Your task to perform on an android device: Open Google Chrome and open the bookmarks view Image 0: 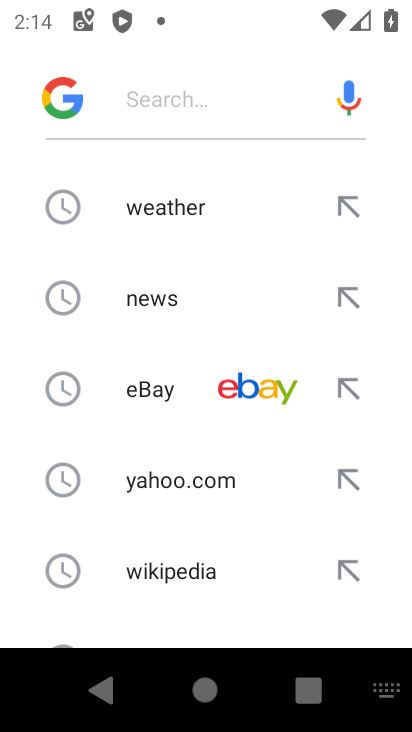
Step 0: press home button
Your task to perform on an android device: Open Google Chrome and open the bookmarks view Image 1: 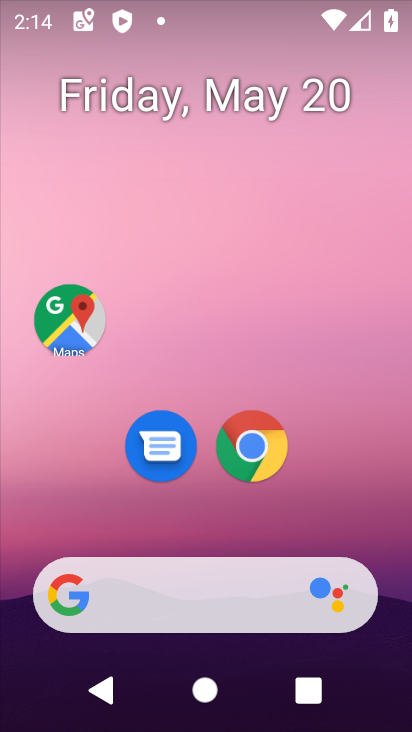
Step 1: click (250, 455)
Your task to perform on an android device: Open Google Chrome and open the bookmarks view Image 2: 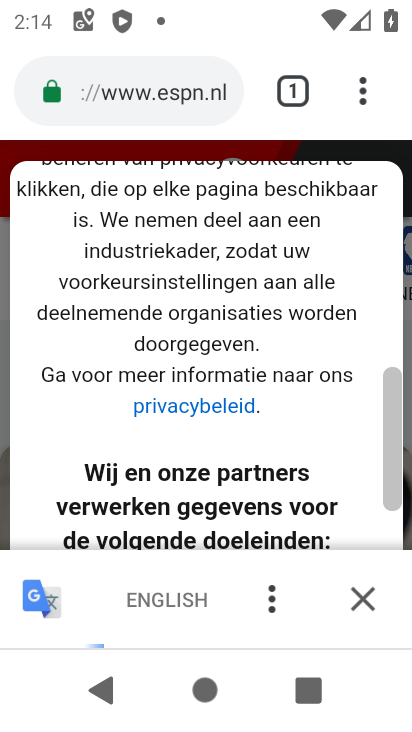
Step 2: click (365, 96)
Your task to perform on an android device: Open Google Chrome and open the bookmarks view Image 3: 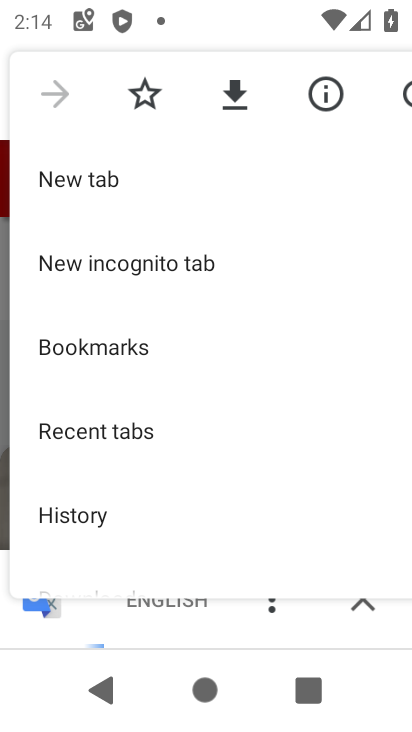
Step 3: click (111, 351)
Your task to perform on an android device: Open Google Chrome and open the bookmarks view Image 4: 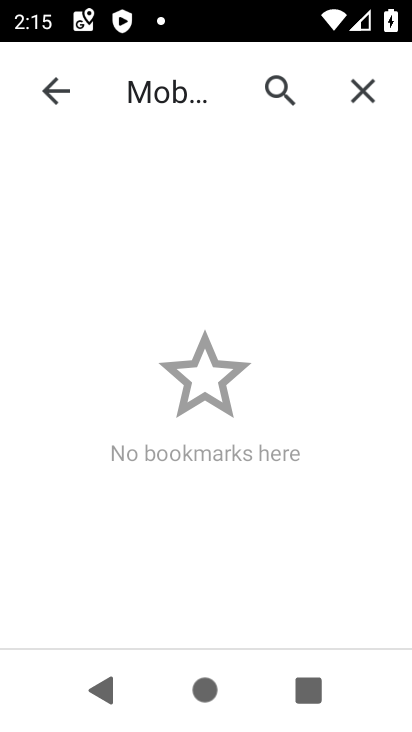
Step 4: task complete